Your task to perform on an android device: turn off location history Image 0: 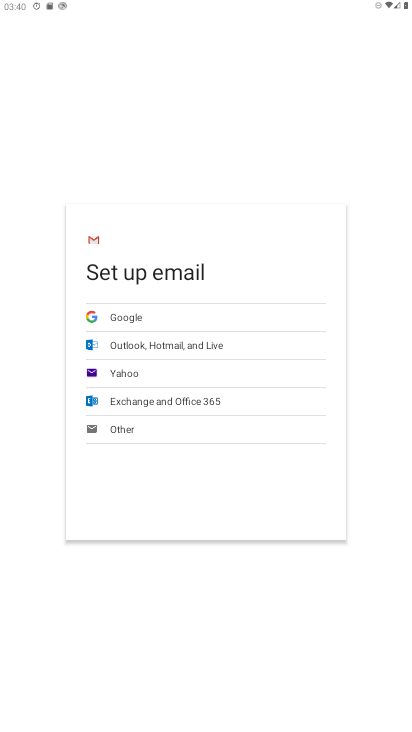
Step 0: press home button
Your task to perform on an android device: turn off location history Image 1: 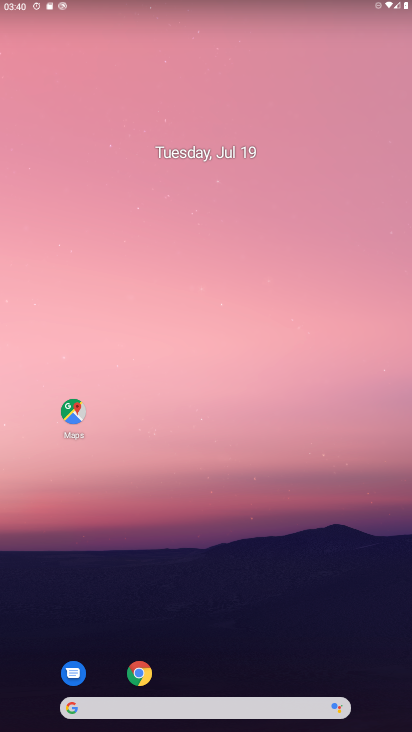
Step 1: drag from (222, 686) to (231, 209)
Your task to perform on an android device: turn off location history Image 2: 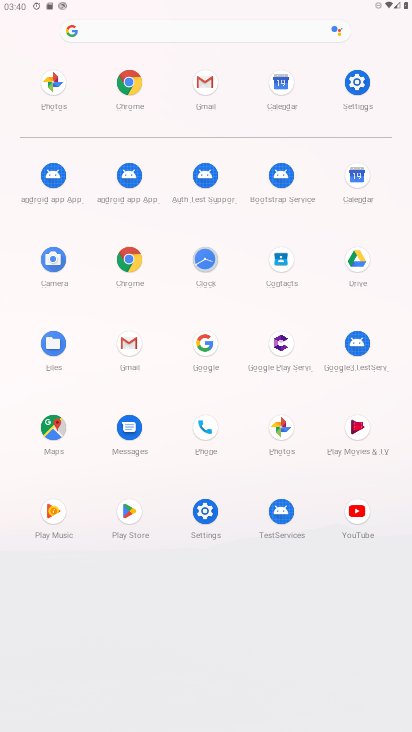
Step 2: click (207, 514)
Your task to perform on an android device: turn off location history Image 3: 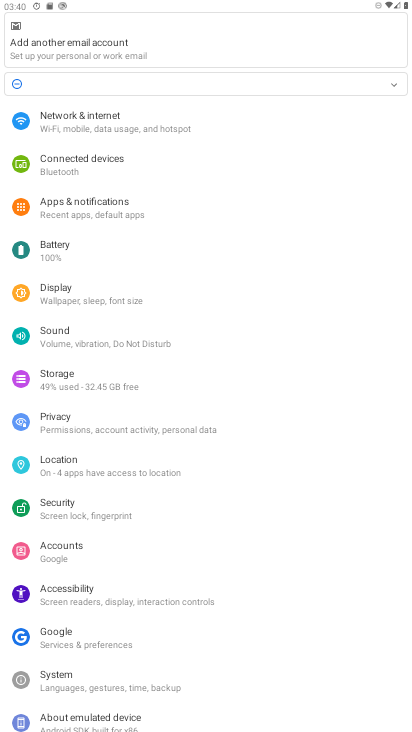
Step 3: click (105, 468)
Your task to perform on an android device: turn off location history Image 4: 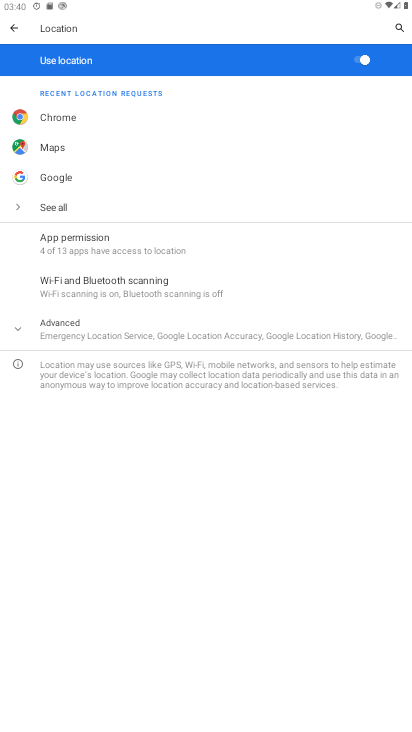
Step 4: click (109, 336)
Your task to perform on an android device: turn off location history Image 5: 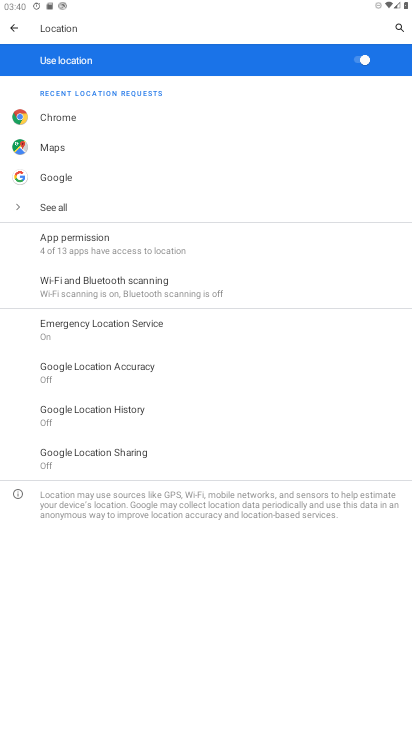
Step 5: click (121, 417)
Your task to perform on an android device: turn off location history Image 6: 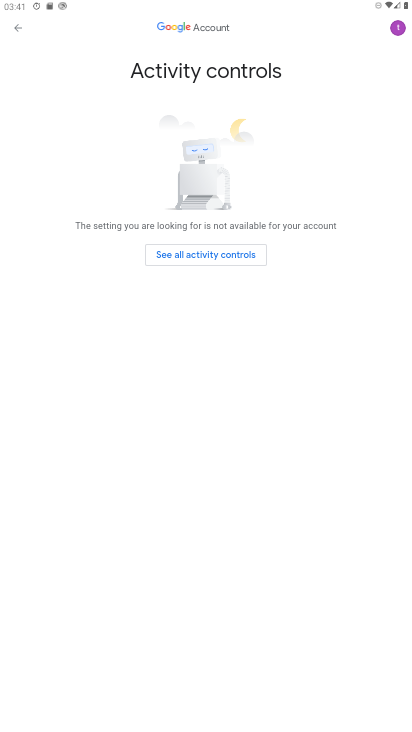
Step 6: click (213, 248)
Your task to perform on an android device: turn off location history Image 7: 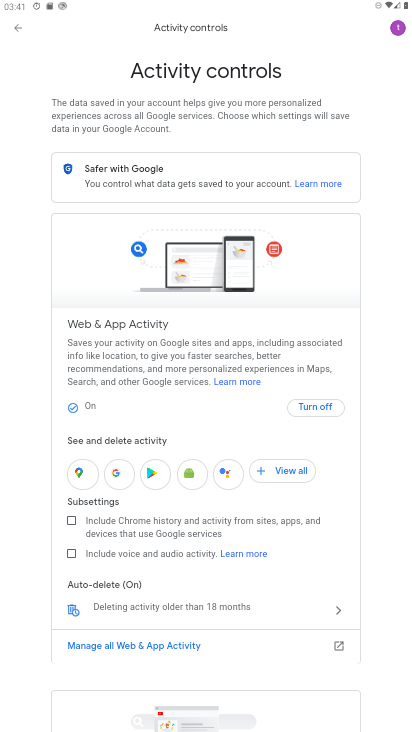
Step 7: click (313, 407)
Your task to perform on an android device: turn off location history Image 8: 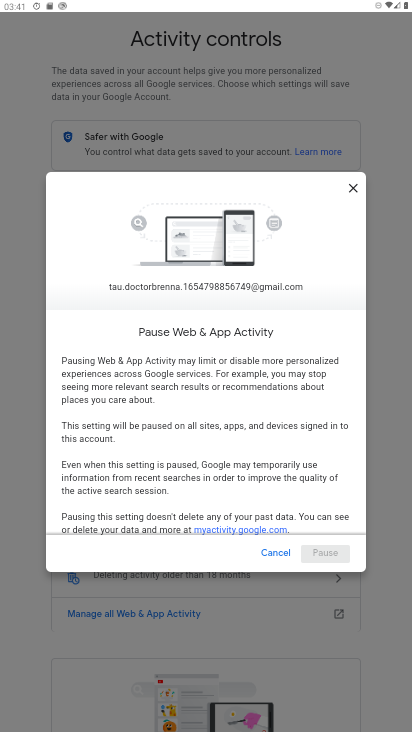
Step 8: drag from (295, 506) to (289, 235)
Your task to perform on an android device: turn off location history Image 9: 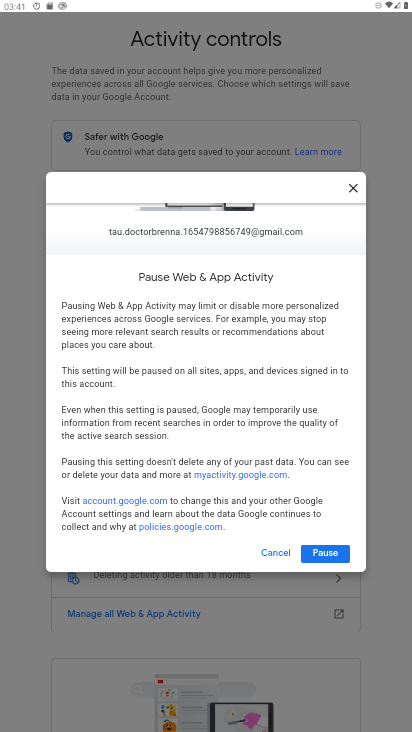
Step 9: click (327, 557)
Your task to perform on an android device: turn off location history Image 10: 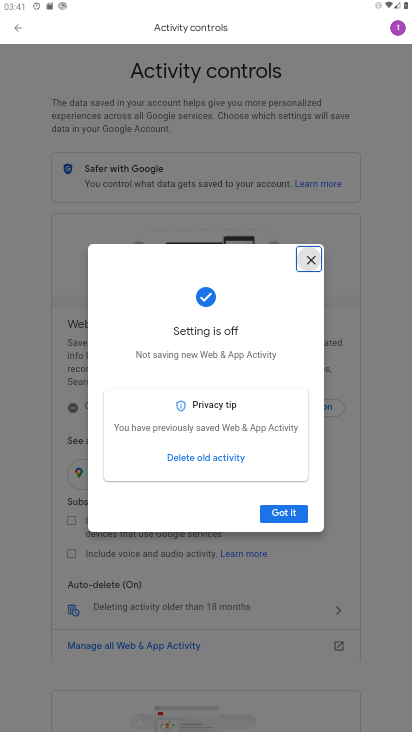
Step 10: click (282, 513)
Your task to perform on an android device: turn off location history Image 11: 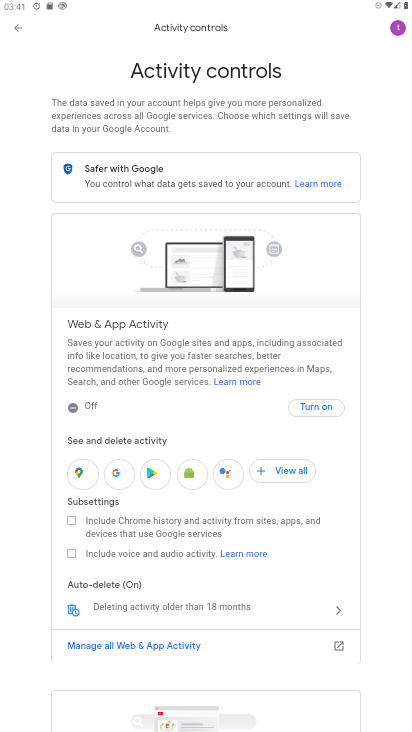
Step 11: task complete